Your task to perform on an android device: see sites visited before in the chrome app Image 0: 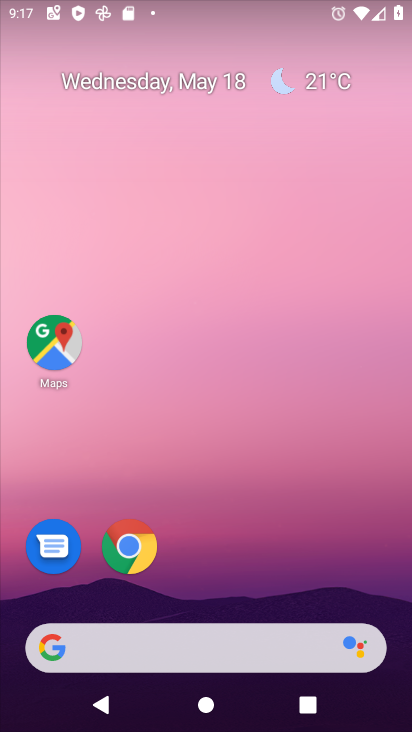
Step 0: drag from (379, 619) to (279, 22)
Your task to perform on an android device: see sites visited before in the chrome app Image 1: 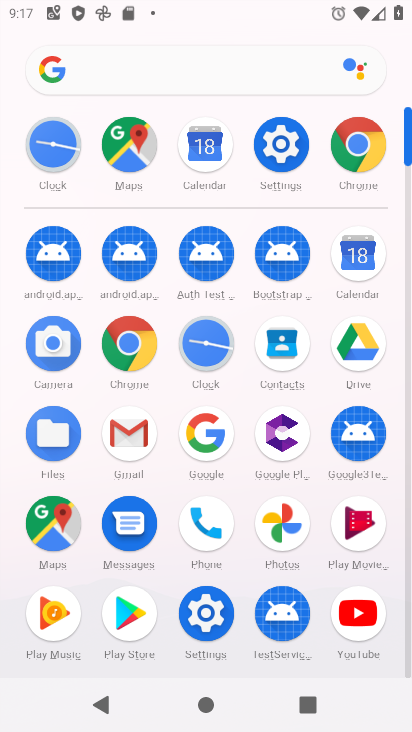
Step 1: click (131, 344)
Your task to perform on an android device: see sites visited before in the chrome app Image 2: 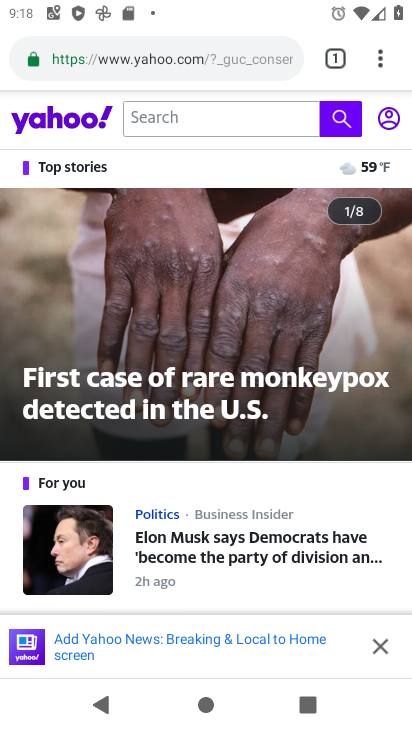
Step 2: press back button
Your task to perform on an android device: see sites visited before in the chrome app Image 3: 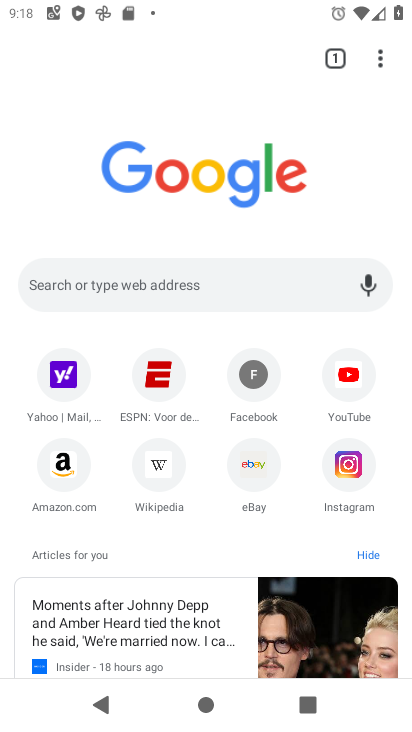
Step 3: click (386, 55)
Your task to perform on an android device: see sites visited before in the chrome app Image 4: 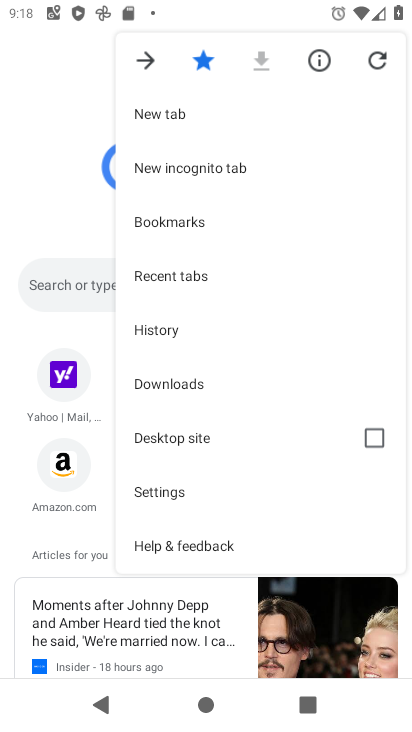
Step 4: click (155, 328)
Your task to perform on an android device: see sites visited before in the chrome app Image 5: 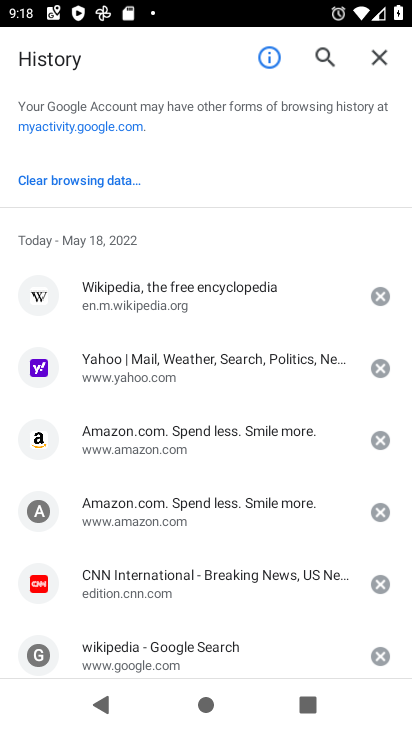
Step 5: click (139, 223)
Your task to perform on an android device: see sites visited before in the chrome app Image 6: 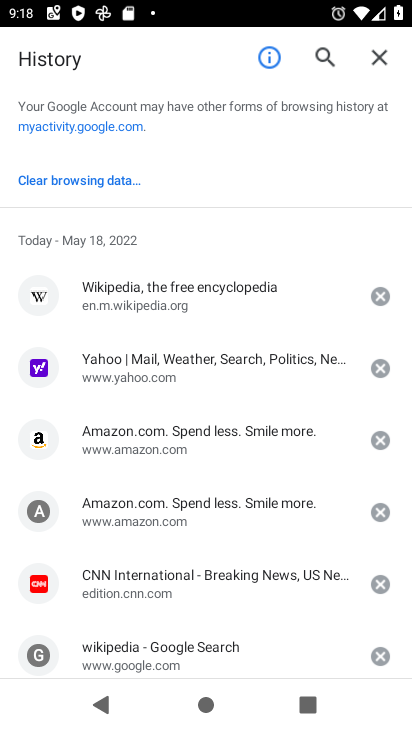
Step 6: click (171, 301)
Your task to perform on an android device: see sites visited before in the chrome app Image 7: 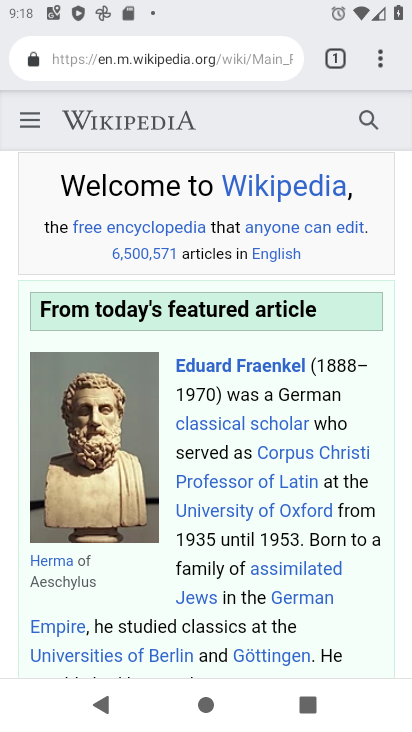
Step 7: task complete